Your task to perform on an android device: open wifi settings Image 0: 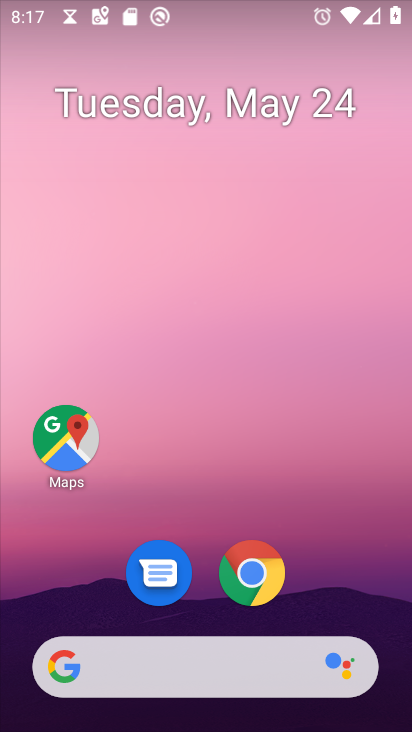
Step 0: drag from (353, 540) to (334, 8)
Your task to perform on an android device: open wifi settings Image 1: 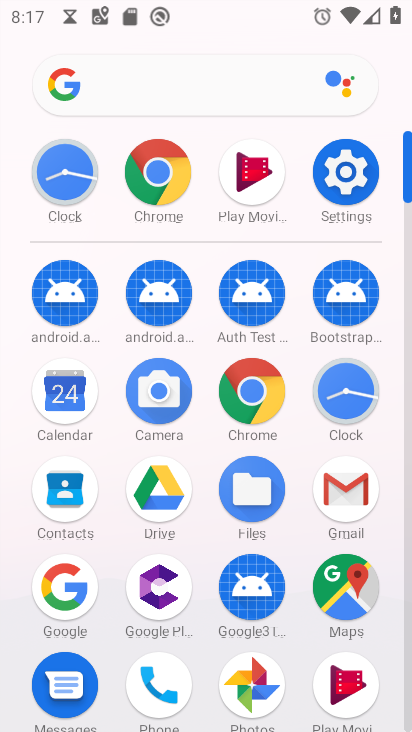
Step 1: click (359, 197)
Your task to perform on an android device: open wifi settings Image 2: 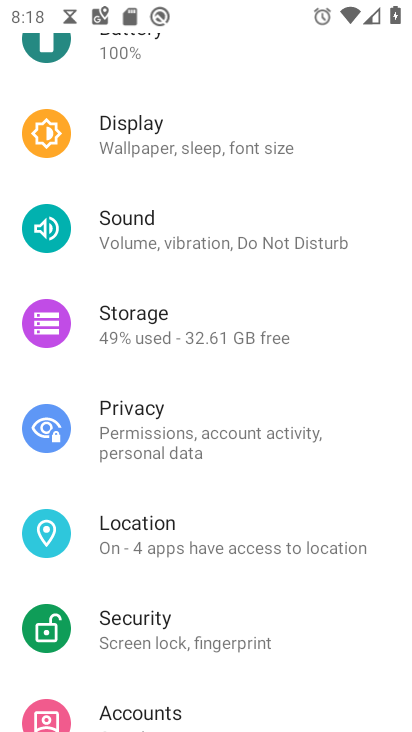
Step 2: drag from (191, 196) to (249, 634)
Your task to perform on an android device: open wifi settings Image 3: 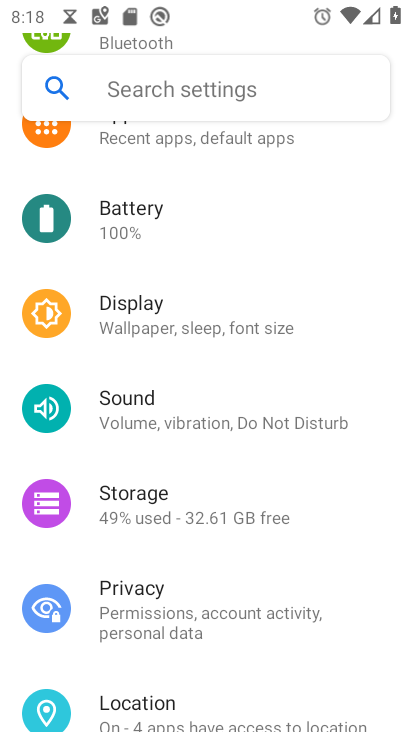
Step 3: drag from (264, 234) to (295, 690)
Your task to perform on an android device: open wifi settings Image 4: 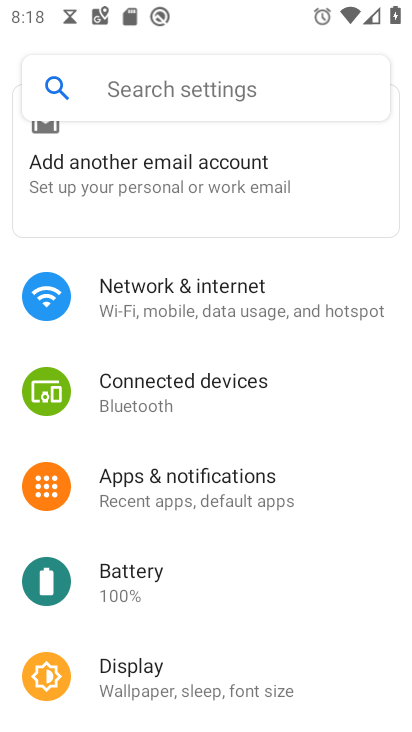
Step 4: click (194, 318)
Your task to perform on an android device: open wifi settings Image 5: 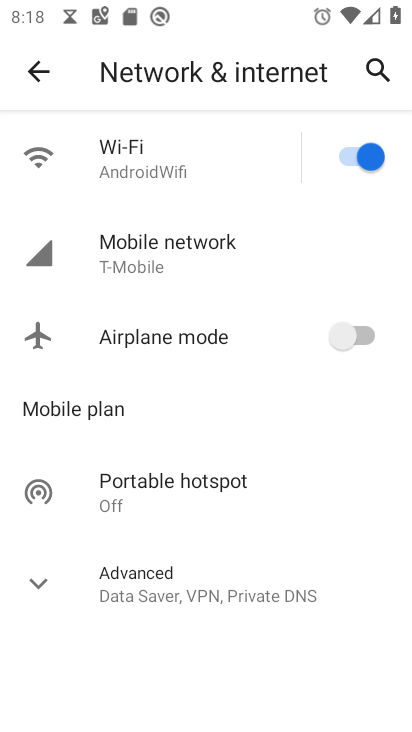
Step 5: click (138, 122)
Your task to perform on an android device: open wifi settings Image 6: 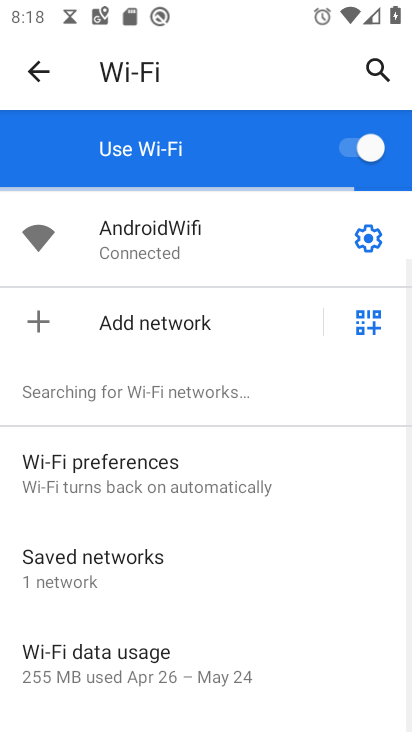
Step 6: task complete